Your task to perform on an android device: search for starred emails in the gmail app Image 0: 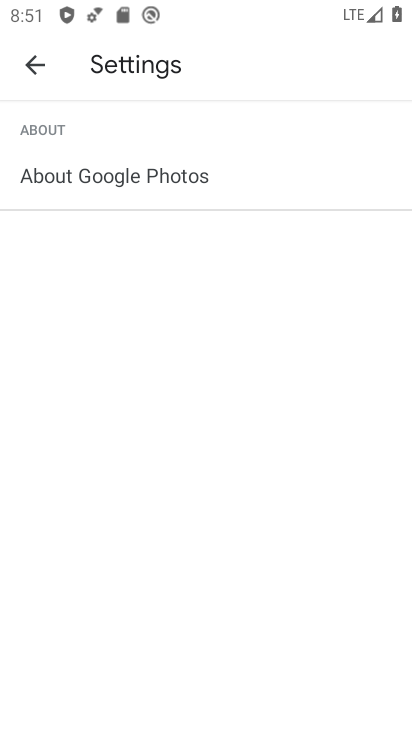
Step 0: press home button
Your task to perform on an android device: search for starred emails in the gmail app Image 1: 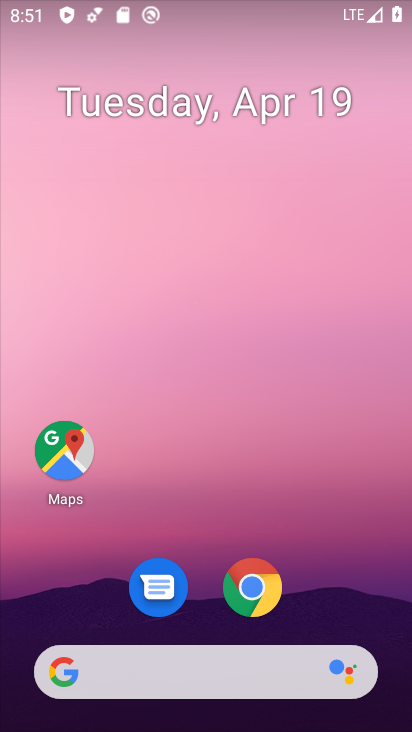
Step 1: drag from (380, 609) to (407, 4)
Your task to perform on an android device: search for starred emails in the gmail app Image 2: 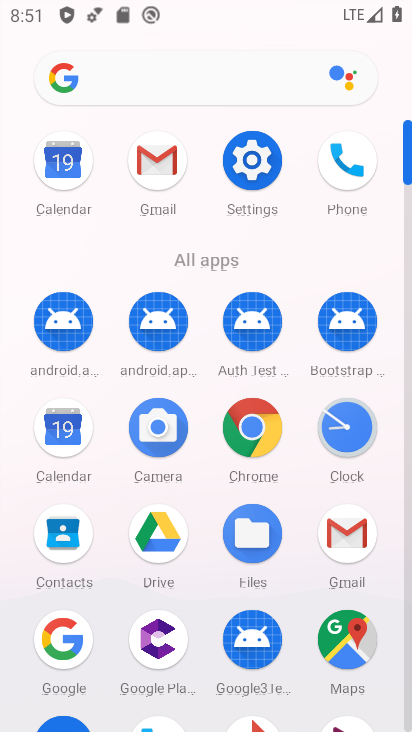
Step 2: click (156, 168)
Your task to perform on an android device: search for starred emails in the gmail app Image 3: 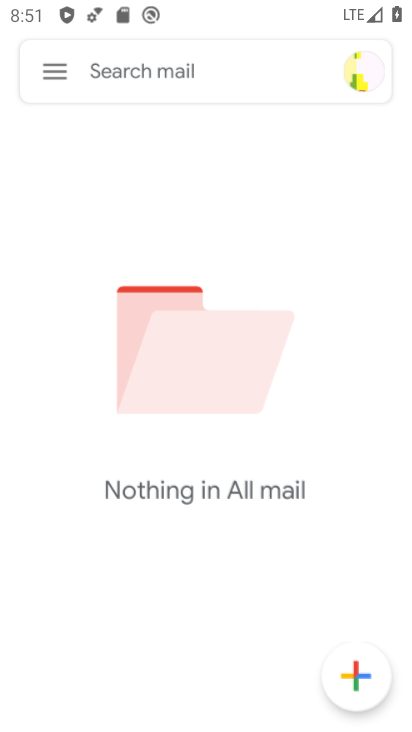
Step 3: click (156, 168)
Your task to perform on an android device: search for starred emails in the gmail app Image 4: 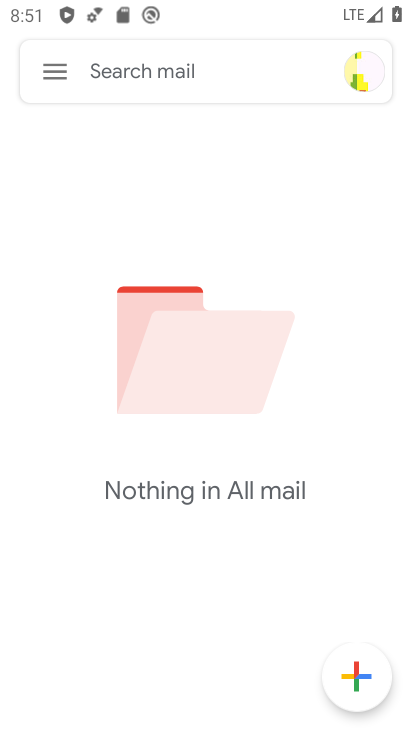
Step 4: click (42, 75)
Your task to perform on an android device: search for starred emails in the gmail app Image 5: 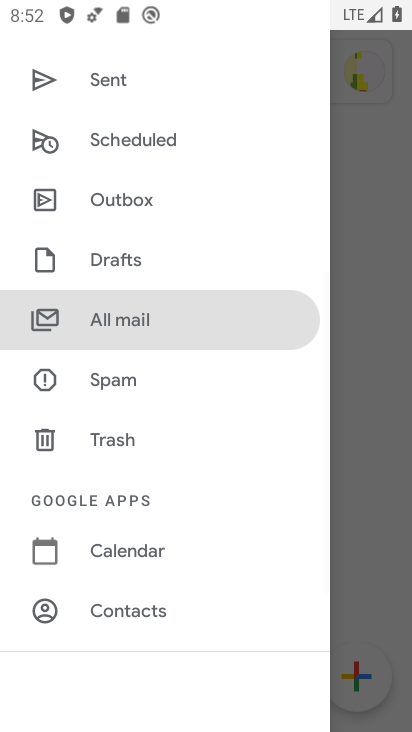
Step 5: drag from (203, 292) to (202, 601)
Your task to perform on an android device: search for starred emails in the gmail app Image 6: 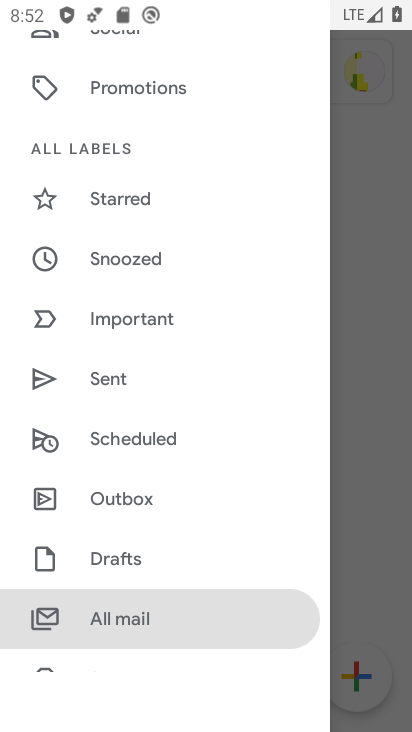
Step 6: click (110, 206)
Your task to perform on an android device: search for starred emails in the gmail app Image 7: 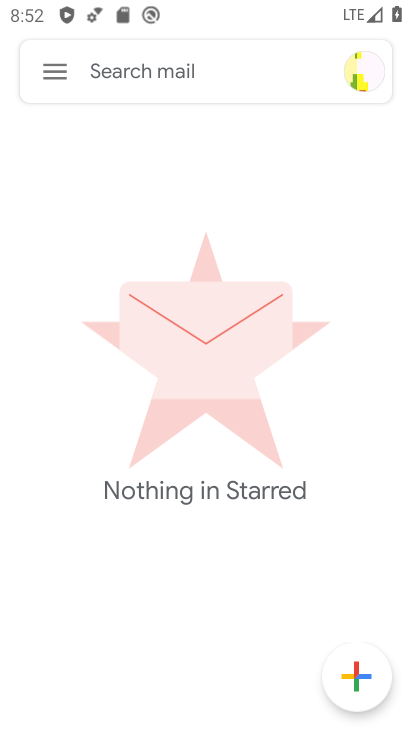
Step 7: task complete